Your task to perform on an android device: find photos in the google photos app Image 0: 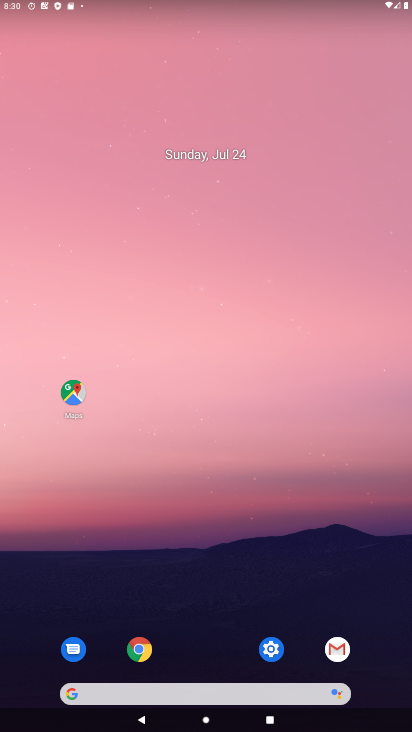
Step 0: drag from (275, 703) to (156, 294)
Your task to perform on an android device: find photos in the google photos app Image 1: 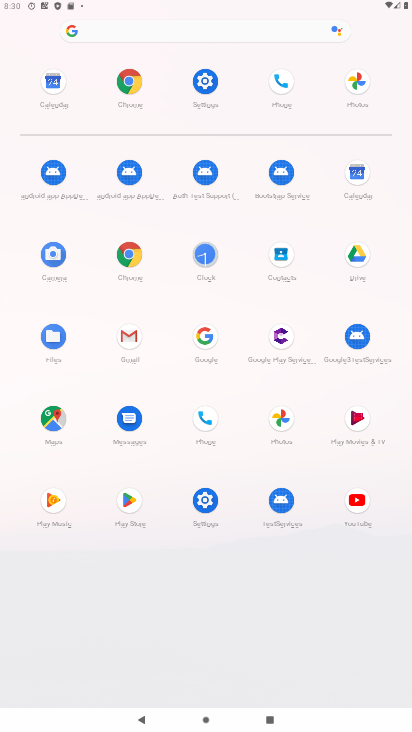
Step 1: click (287, 410)
Your task to perform on an android device: find photos in the google photos app Image 2: 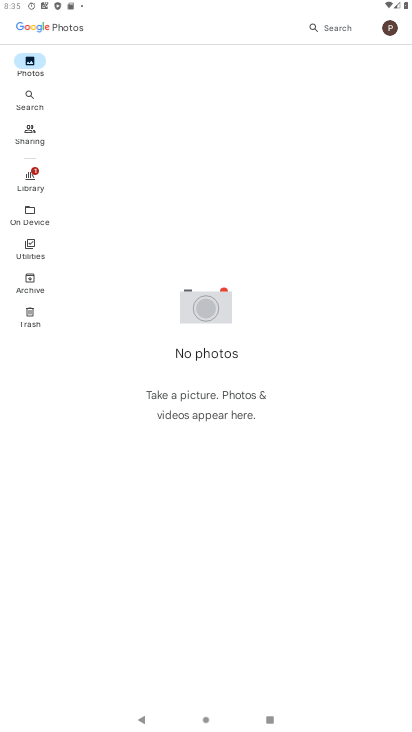
Step 2: task complete